Your task to perform on an android device: Open battery settings Image 0: 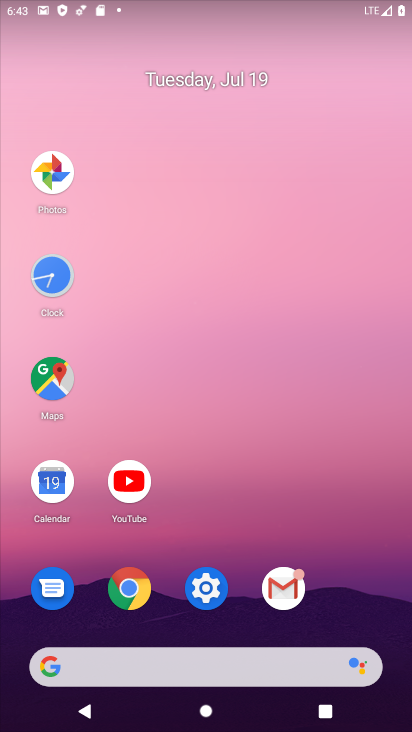
Step 0: click (211, 582)
Your task to perform on an android device: Open battery settings Image 1: 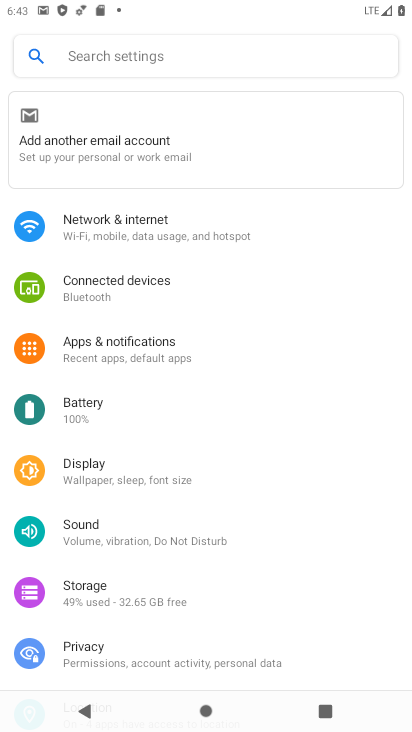
Step 1: click (80, 400)
Your task to perform on an android device: Open battery settings Image 2: 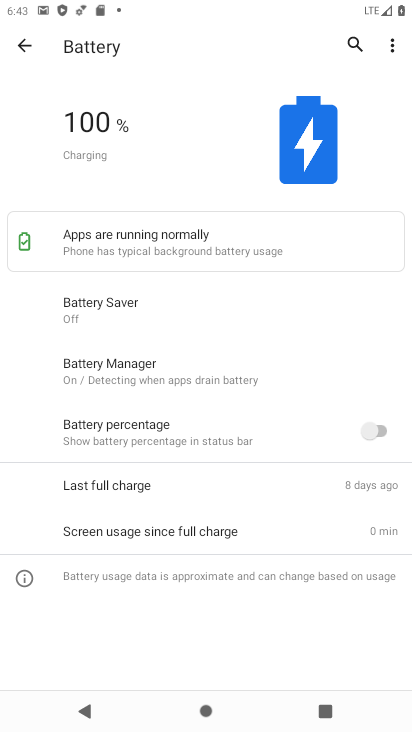
Step 2: task complete